Your task to perform on an android device: find photos in the google photos app Image 0: 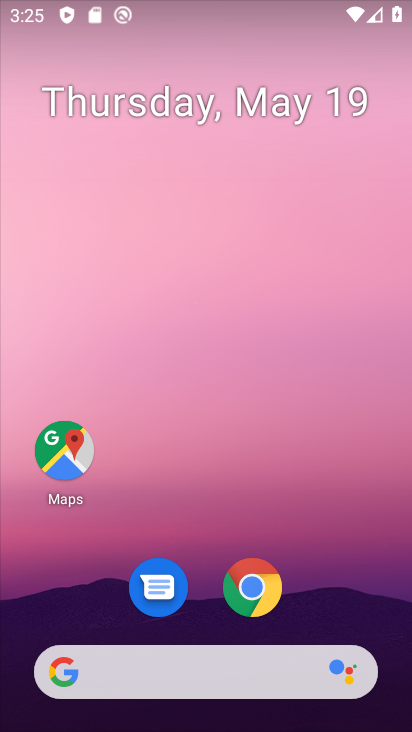
Step 0: drag from (368, 607) to (334, 258)
Your task to perform on an android device: find photos in the google photos app Image 1: 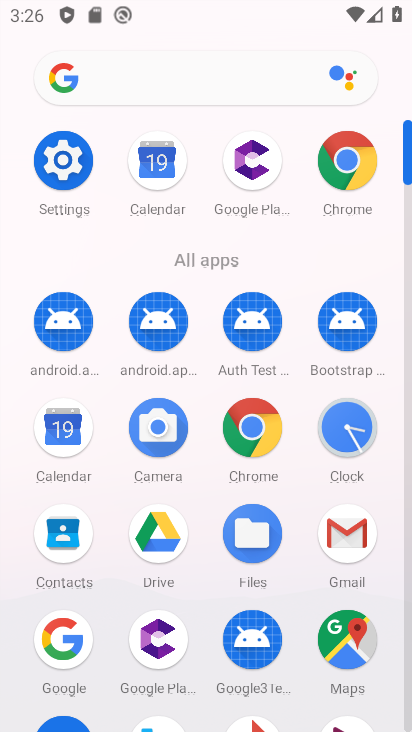
Step 1: drag from (204, 608) to (197, 436)
Your task to perform on an android device: find photos in the google photos app Image 2: 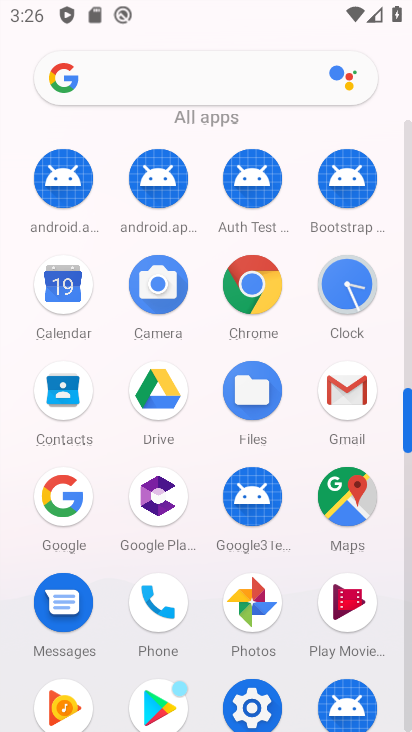
Step 2: click (221, 608)
Your task to perform on an android device: find photos in the google photos app Image 3: 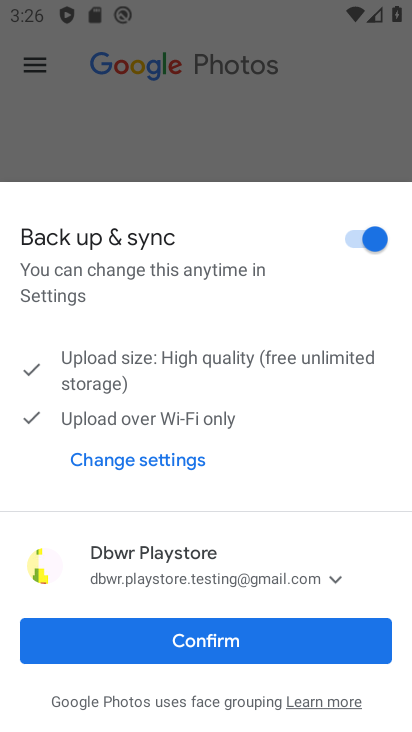
Step 3: click (224, 638)
Your task to perform on an android device: find photos in the google photos app Image 4: 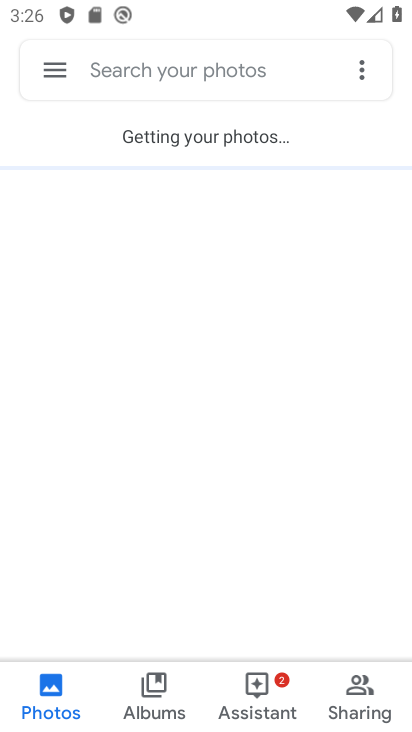
Step 4: task complete